Your task to perform on an android device: toggle pop-ups in chrome Image 0: 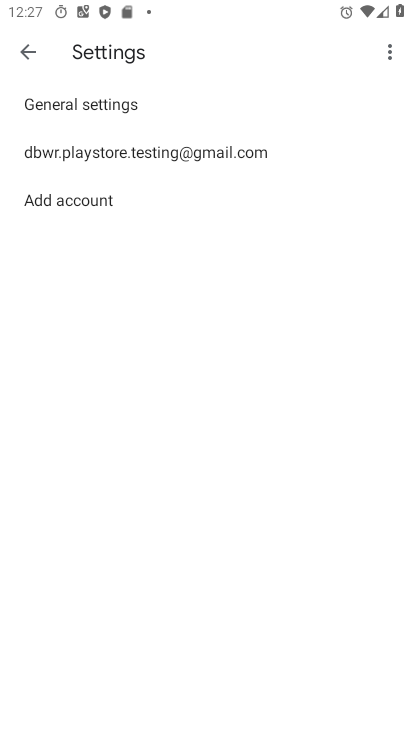
Step 0: press home button
Your task to perform on an android device: toggle pop-ups in chrome Image 1: 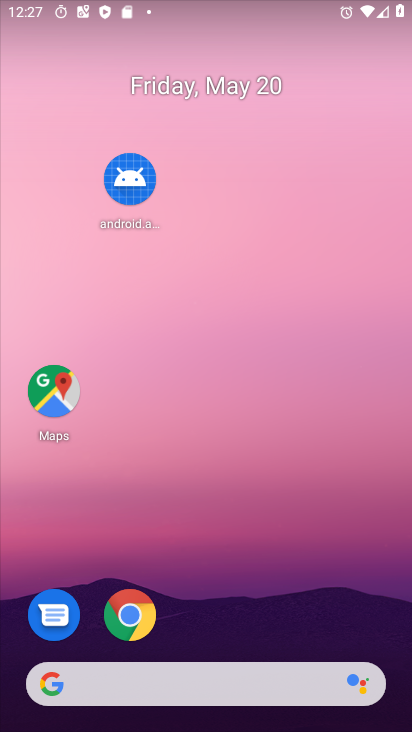
Step 1: click (133, 612)
Your task to perform on an android device: toggle pop-ups in chrome Image 2: 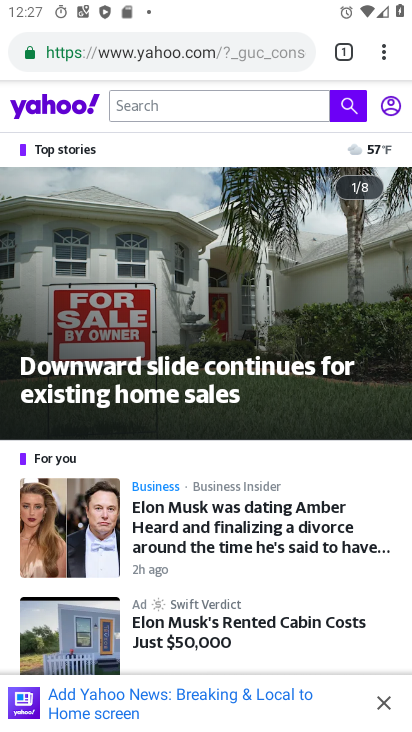
Step 2: click (388, 49)
Your task to perform on an android device: toggle pop-ups in chrome Image 3: 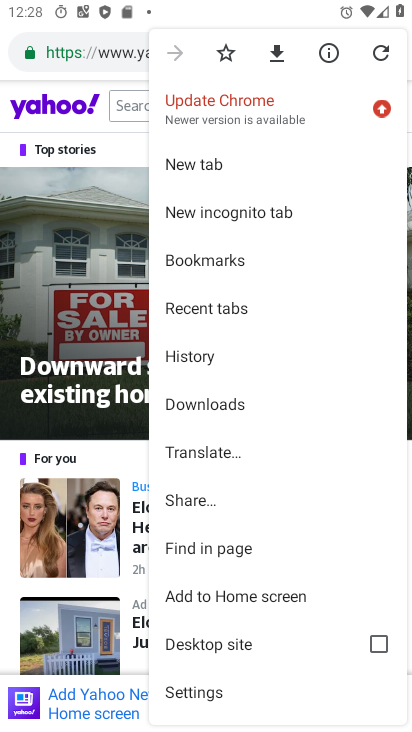
Step 3: drag from (235, 664) to (219, 421)
Your task to perform on an android device: toggle pop-ups in chrome Image 4: 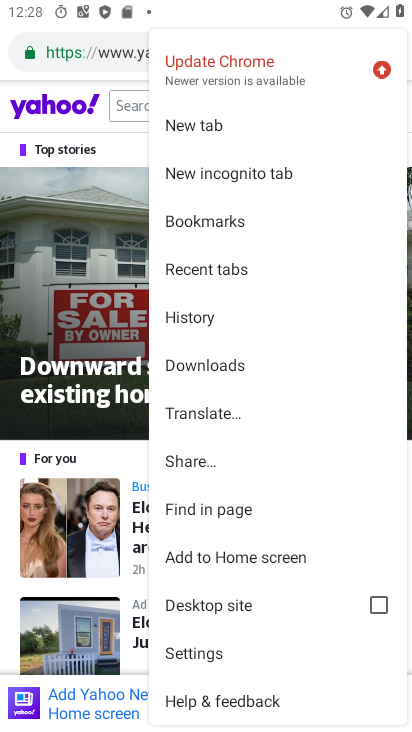
Step 4: click (180, 651)
Your task to perform on an android device: toggle pop-ups in chrome Image 5: 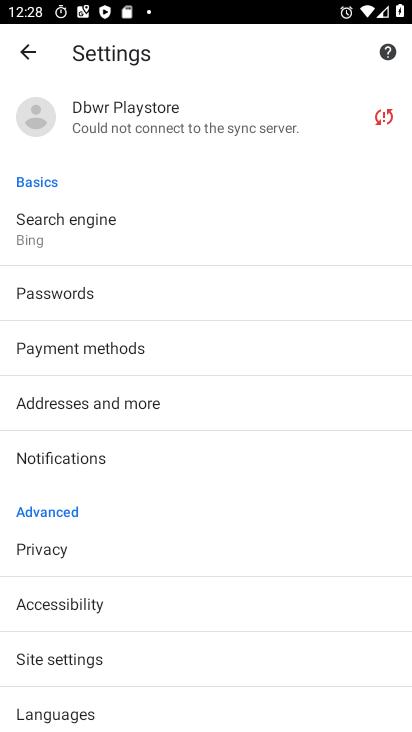
Step 5: click (114, 661)
Your task to perform on an android device: toggle pop-ups in chrome Image 6: 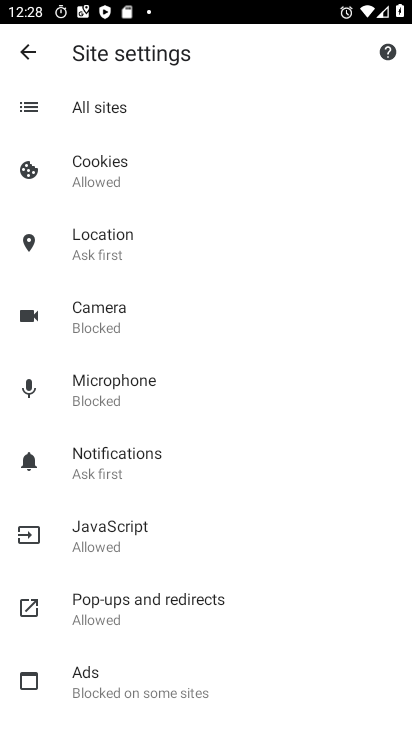
Step 6: click (189, 601)
Your task to perform on an android device: toggle pop-ups in chrome Image 7: 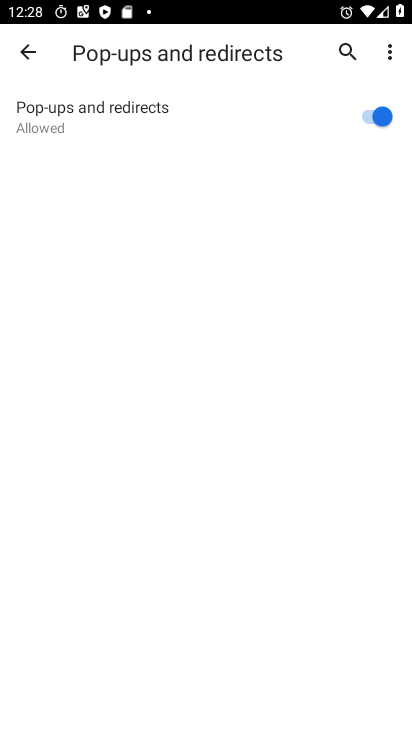
Step 7: click (365, 116)
Your task to perform on an android device: toggle pop-ups in chrome Image 8: 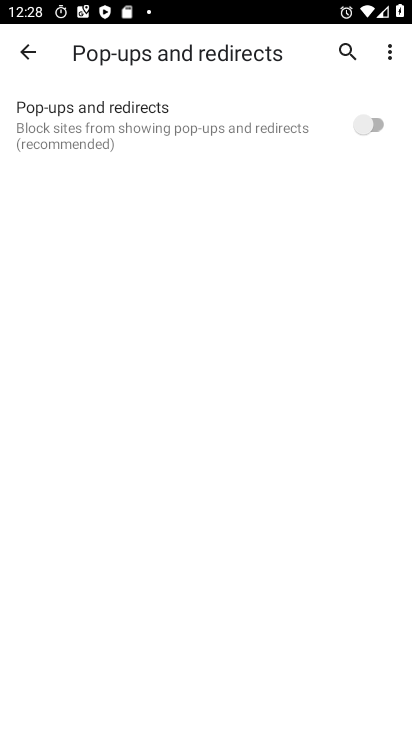
Step 8: task complete